Your task to perform on an android device: turn pop-ups off in chrome Image 0: 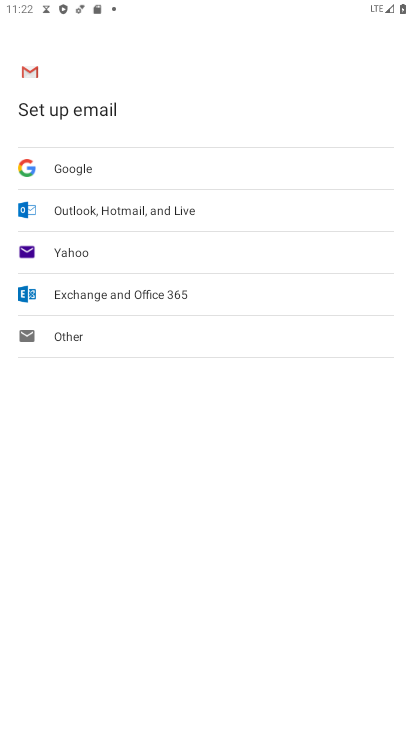
Step 0: press back button
Your task to perform on an android device: turn pop-ups off in chrome Image 1: 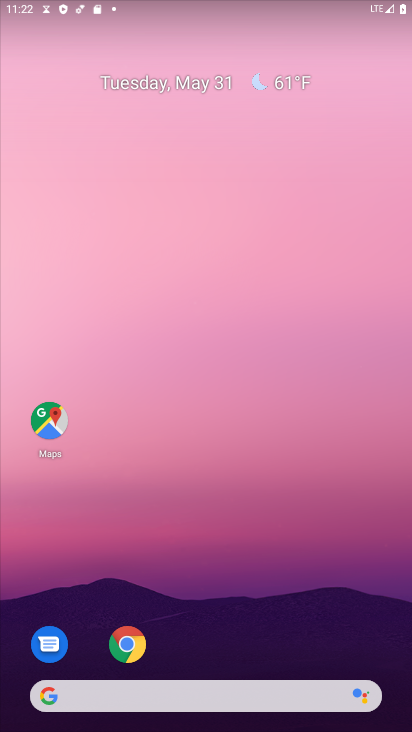
Step 1: click (142, 648)
Your task to perform on an android device: turn pop-ups off in chrome Image 2: 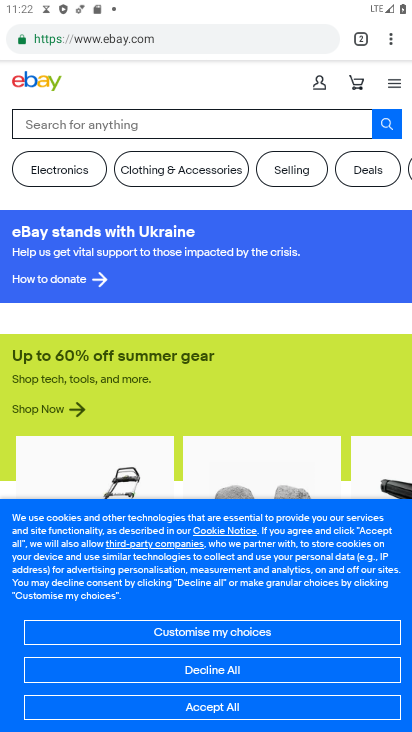
Step 2: drag from (385, 38) to (247, 474)
Your task to perform on an android device: turn pop-ups off in chrome Image 3: 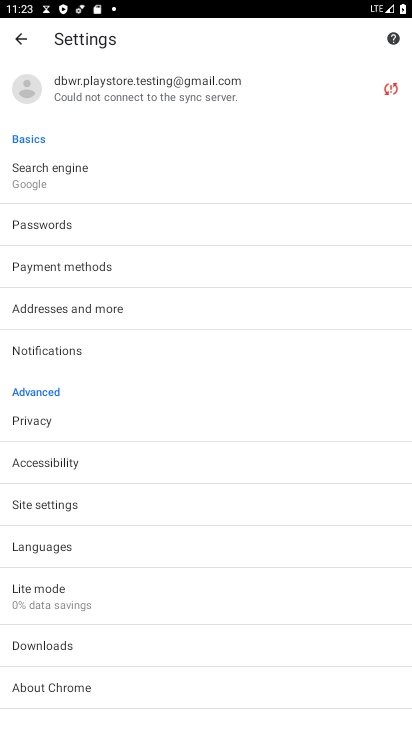
Step 3: click (58, 505)
Your task to perform on an android device: turn pop-ups off in chrome Image 4: 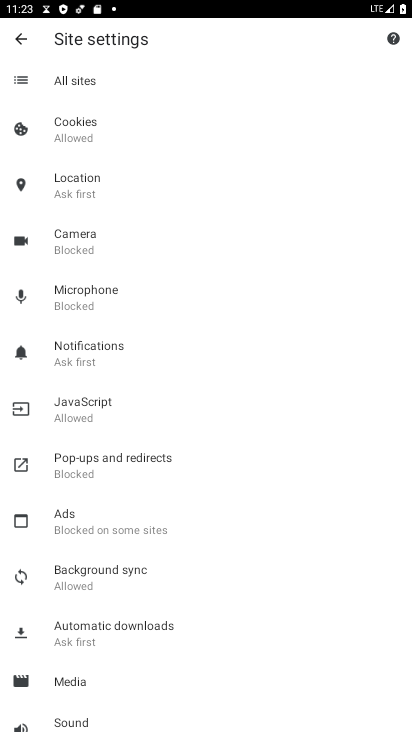
Step 4: click (90, 466)
Your task to perform on an android device: turn pop-ups off in chrome Image 5: 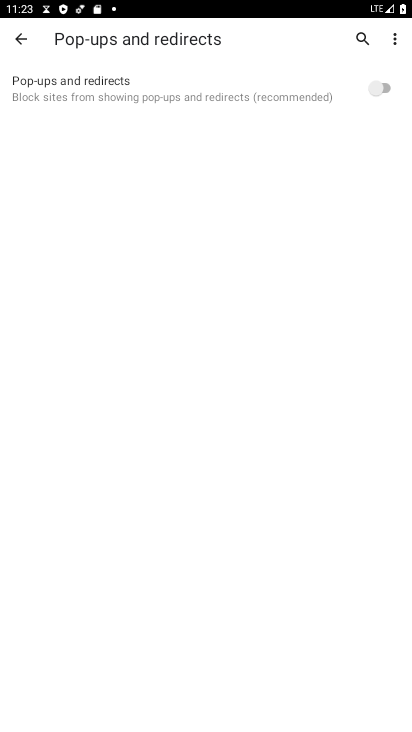
Step 5: task complete